Your task to perform on an android device: open a bookmark in the chrome app Image 0: 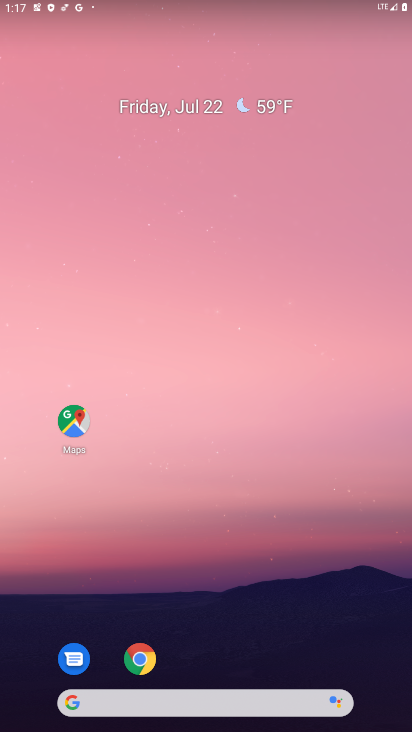
Step 0: drag from (242, 632) to (251, 114)
Your task to perform on an android device: open a bookmark in the chrome app Image 1: 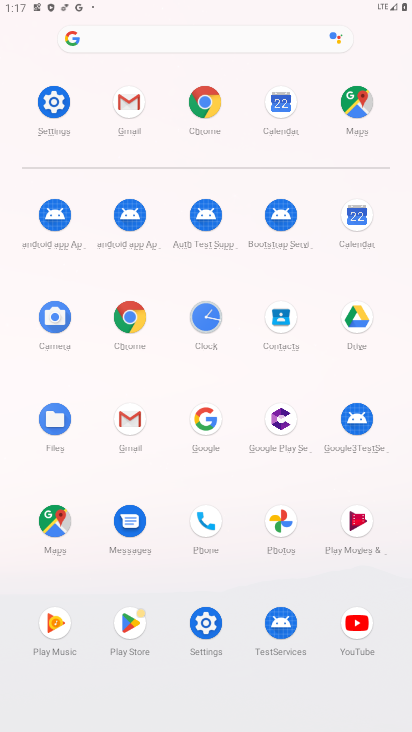
Step 1: click (207, 107)
Your task to perform on an android device: open a bookmark in the chrome app Image 2: 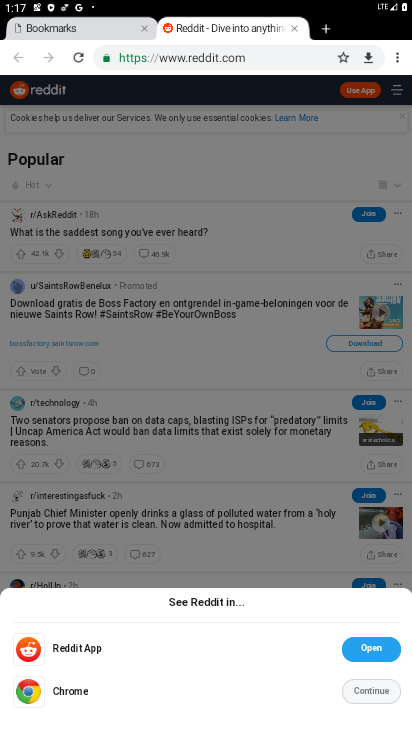
Step 2: task complete